Your task to perform on an android device: see sites visited before in the chrome app Image 0: 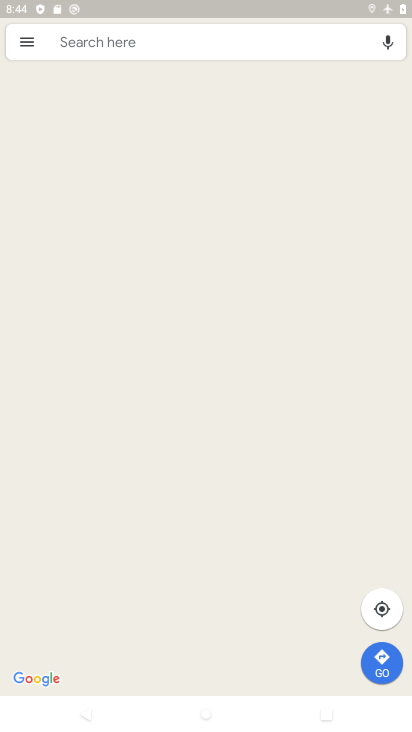
Step 0: press home button
Your task to perform on an android device: see sites visited before in the chrome app Image 1: 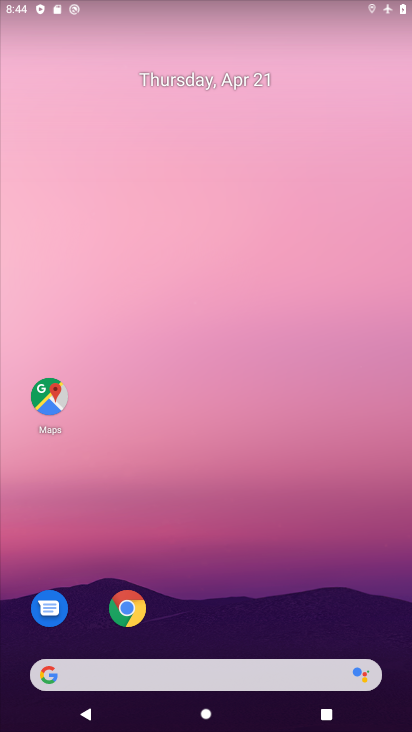
Step 1: click (125, 606)
Your task to perform on an android device: see sites visited before in the chrome app Image 2: 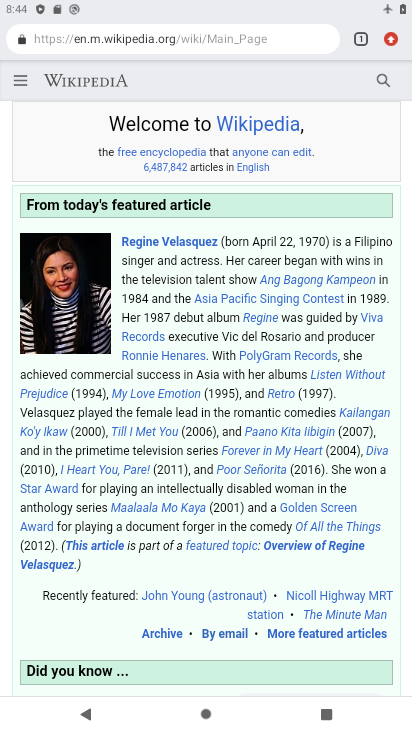
Step 2: click (392, 39)
Your task to perform on an android device: see sites visited before in the chrome app Image 3: 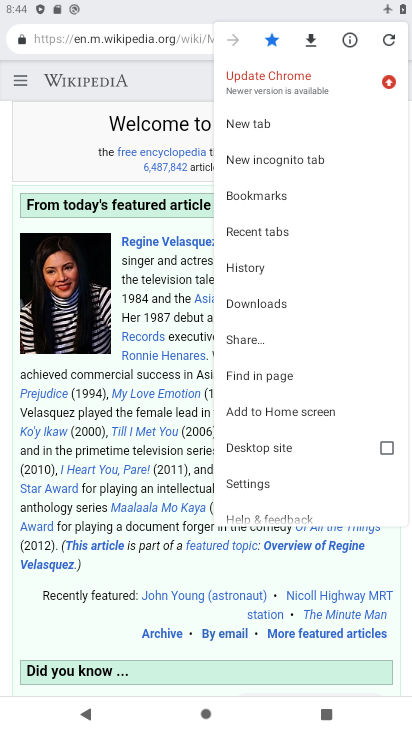
Step 3: click (251, 266)
Your task to perform on an android device: see sites visited before in the chrome app Image 4: 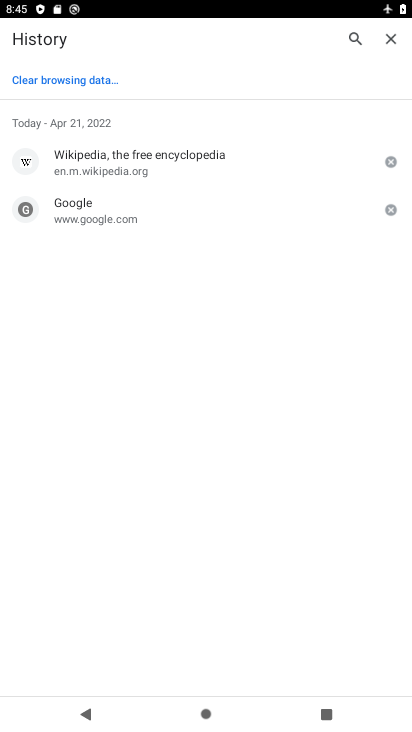
Step 4: task complete